Your task to perform on an android device: turn off picture-in-picture Image 0: 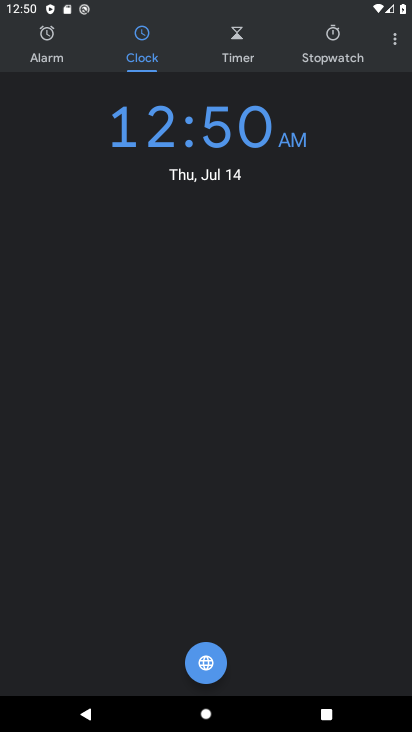
Step 0: press home button
Your task to perform on an android device: turn off picture-in-picture Image 1: 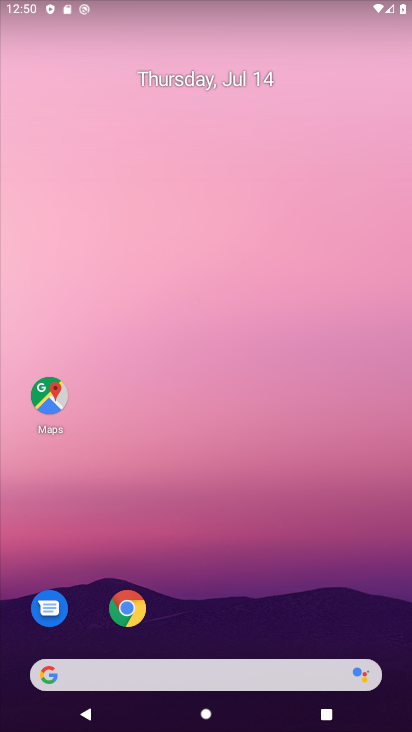
Step 1: drag from (397, 647) to (329, 219)
Your task to perform on an android device: turn off picture-in-picture Image 2: 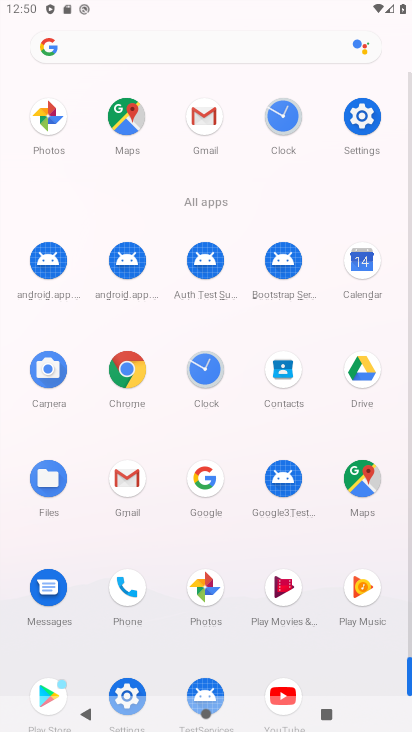
Step 2: drag from (154, 664) to (146, 526)
Your task to perform on an android device: turn off picture-in-picture Image 3: 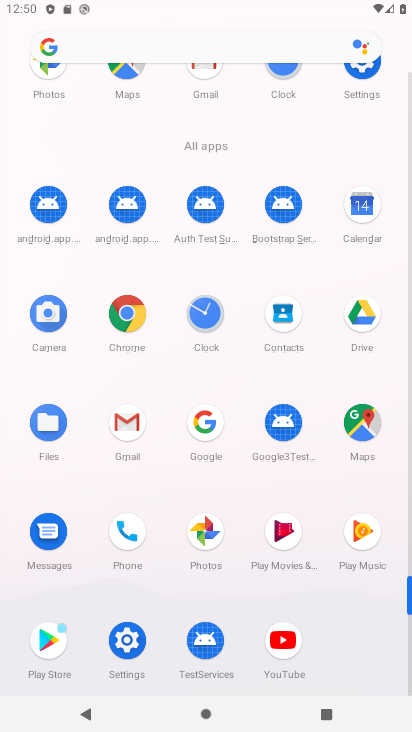
Step 3: click (124, 639)
Your task to perform on an android device: turn off picture-in-picture Image 4: 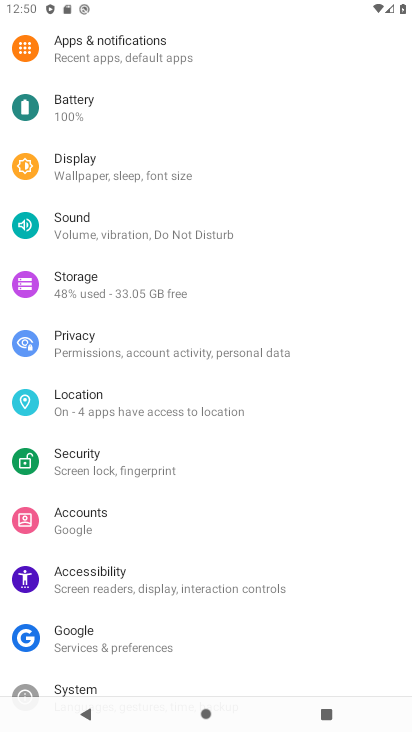
Step 4: click (96, 55)
Your task to perform on an android device: turn off picture-in-picture Image 5: 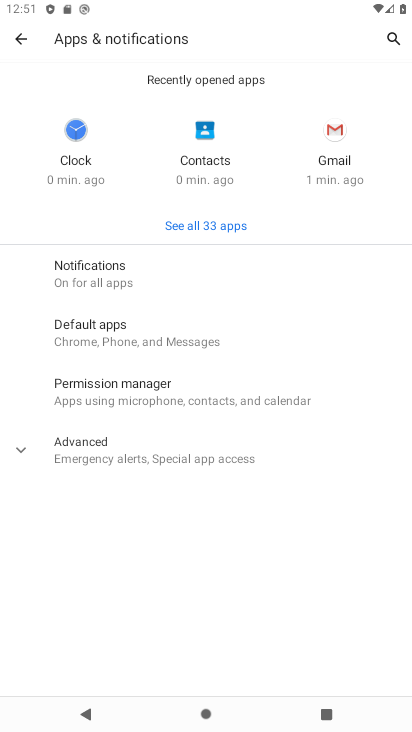
Step 5: click (21, 448)
Your task to perform on an android device: turn off picture-in-picture Image 6: 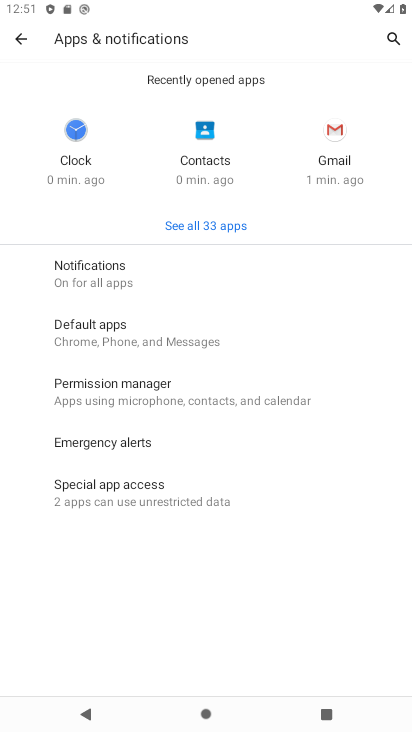
Step 6: click (121, 486)
Your task to perform on an android device: turn off picture-in-picture Image 7: 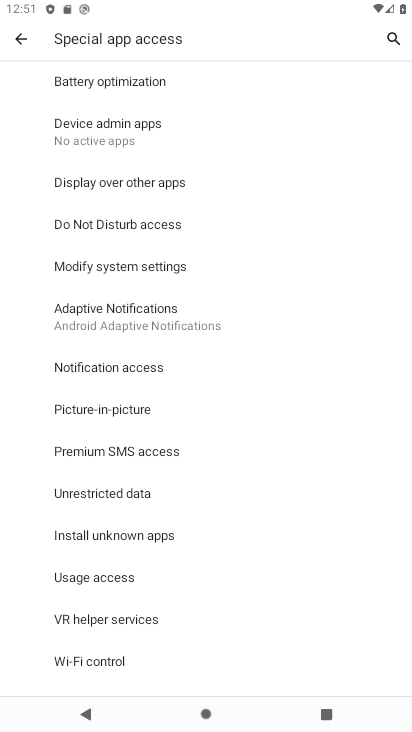
Step 7: click (89, 407)
Your task to perform on an android device: turn off picture-in-picture Image 8: 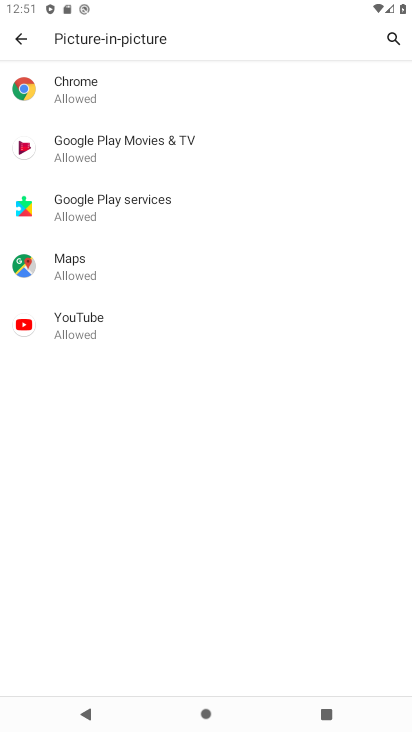
Step 8: click (66, 315)
Your task to perform on an android device: turn off picture-in-picture Image 9: 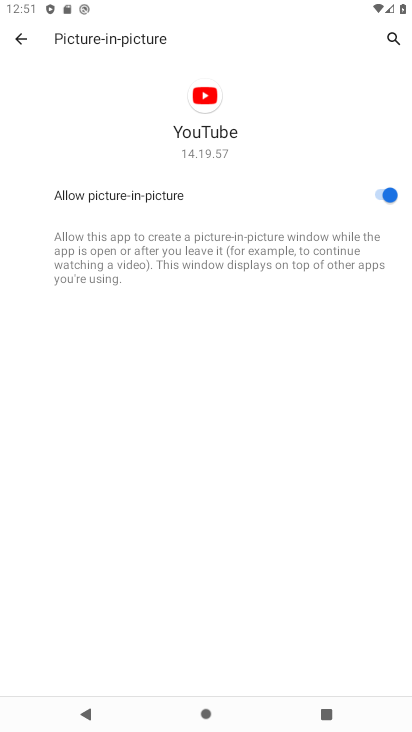
Step 9: click (377, 195)
Your task to perform on an android device: turn off picture-in-picture Image 10: 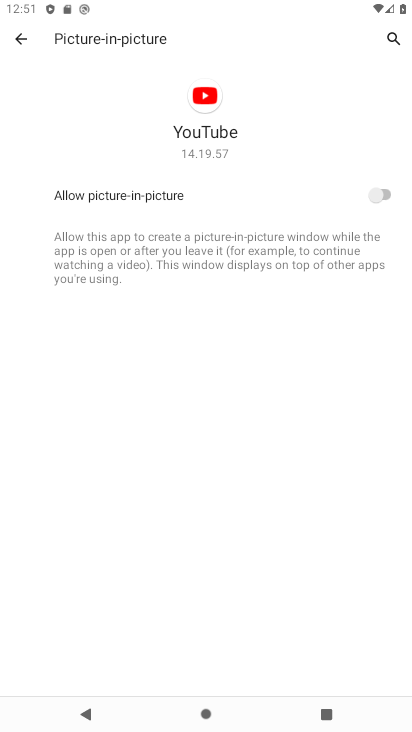
Step 10: task complete